Your task to perform on an android device: make emails show in primary in the gmail app Image 0: 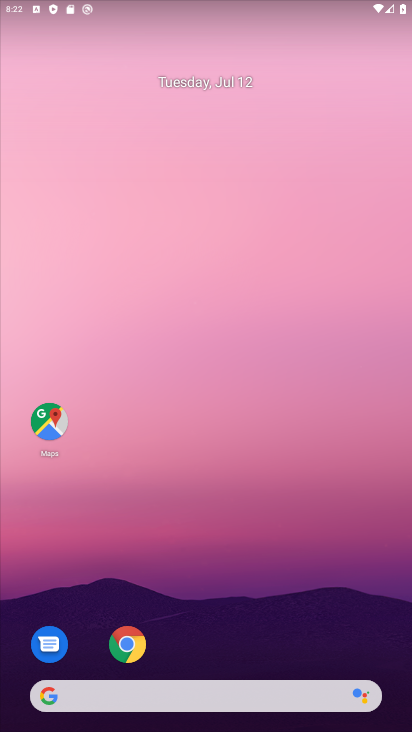
Step 0: drag from (343, 669) to (319, 15)
Your task to perform on an android device: make emails show in primary in the gmail app Image 1: 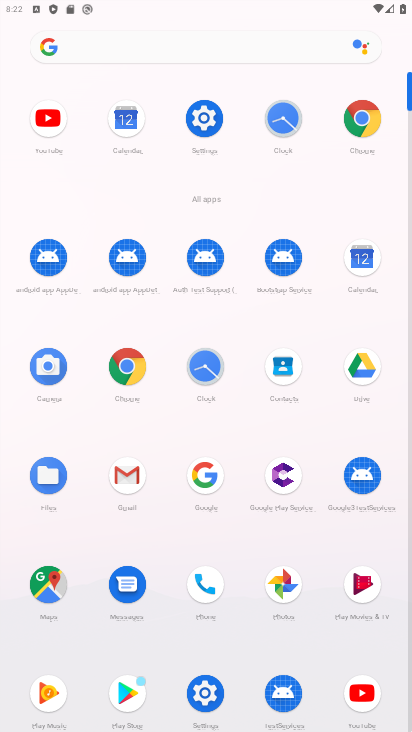
Step 1: click (127, 475)
Your task to perform on an android device: make emails show in primary in the gmail app Image 2: 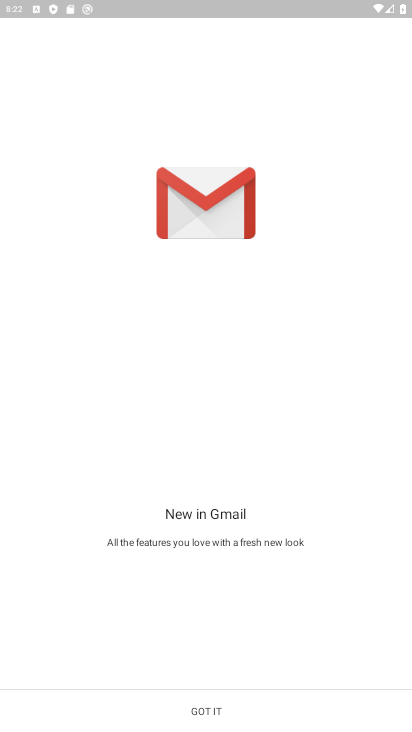
Step 2: click (214, 709)
Your task to perform on an android device: make emails show in primary in the gmail app Image 3: 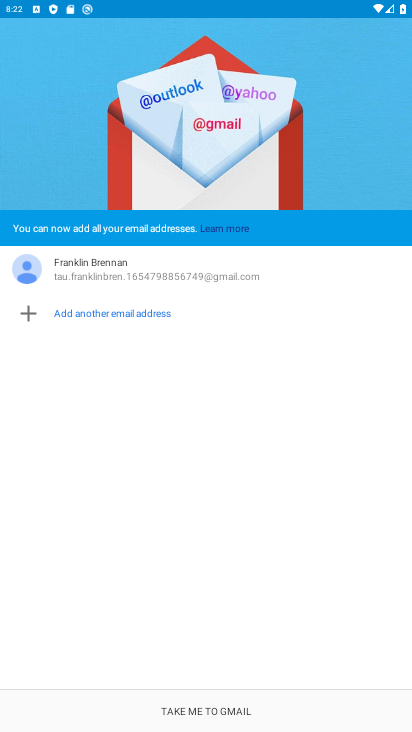
Step 3: click (214, 709)
Your task to perform on an android device: make emails show in primary in the gmail app Image 4: 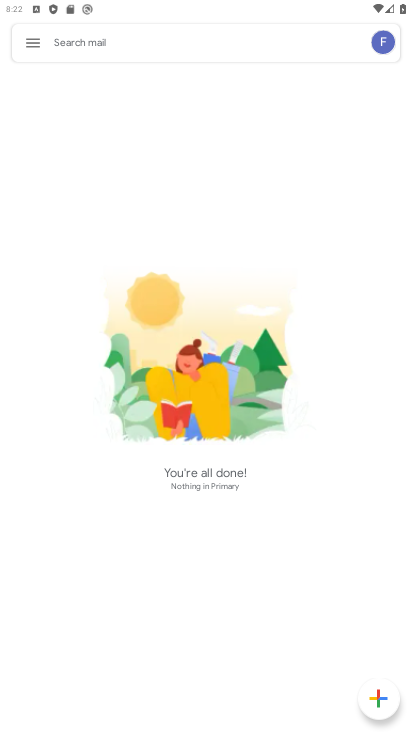
Step 4: click (35, 39)
Your task to perform on an android device: make emails show in primary in the gmail app Image 5: 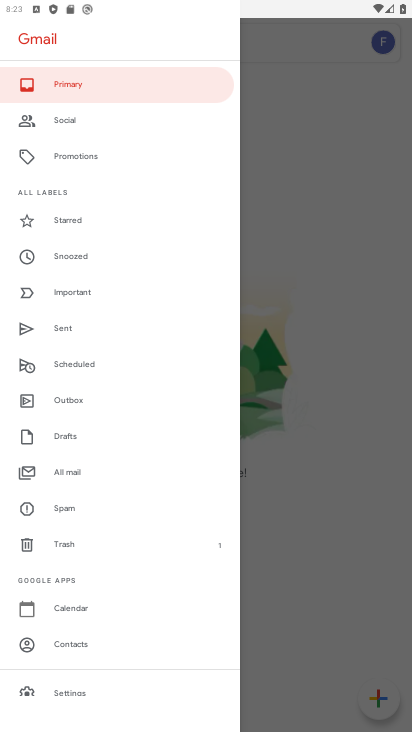
Step 5: click (90, 83)
Your task to perform on an android device: make emails show in primary in the gmail app Image 6: 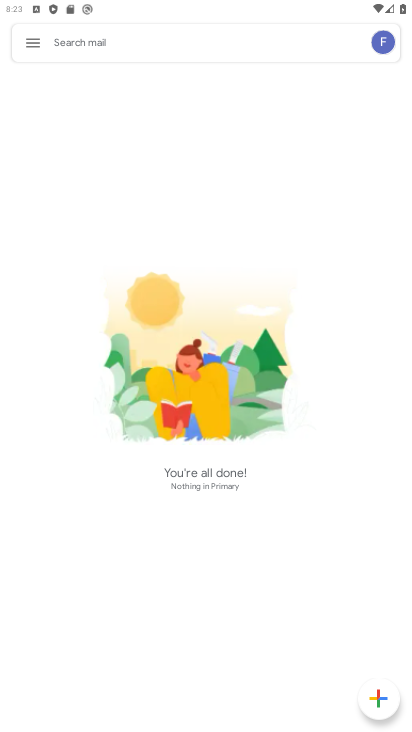
Step 6: task complete